Your task to perform on an android device: Empty the shopping cart on ebay.com. Image 0: 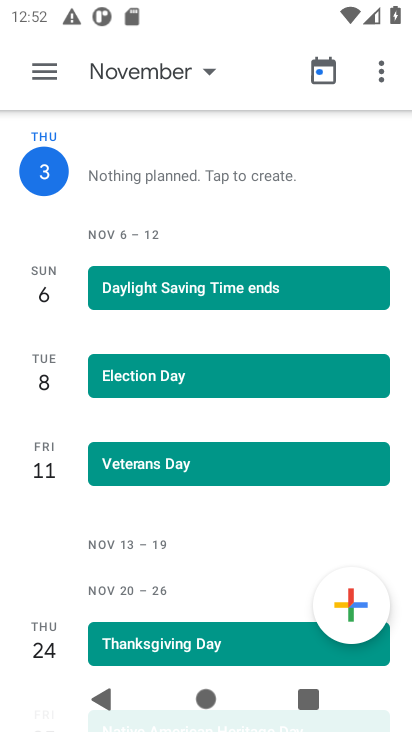
Step 0: press home button
Your task to perform on an android device: Empty the shopping cart on ebay.com. Image 1: 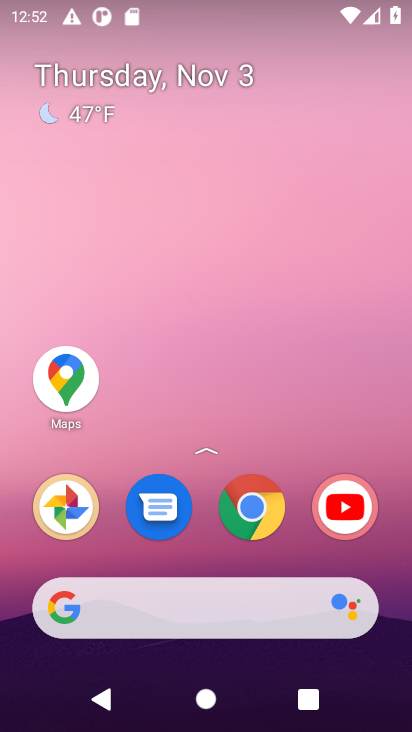
Step 1: click (188, 612)
Your task to perform on an android device: Empty the shopping cart on ebay.com. Image 2: 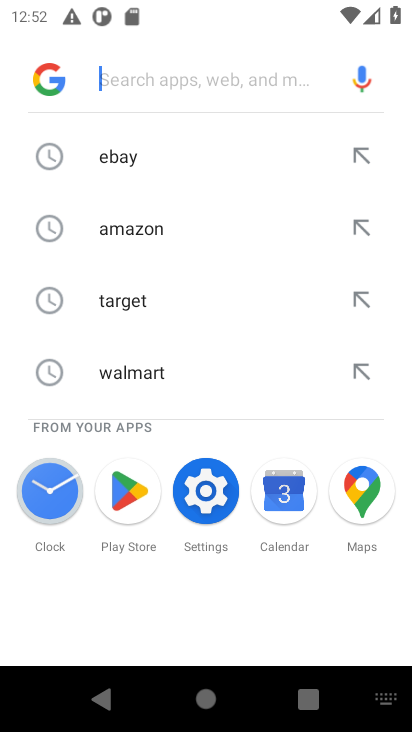
Step 2: type "ebay.com"
Your task to perform on an android device: Empty the shopping cart on ebay.com. Image 3: 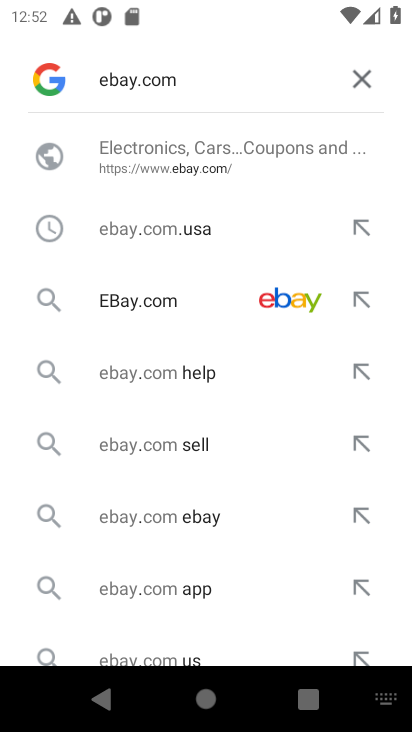
Step 3: click (149, 191)
Your task to perform on an android device: Empty the shopping cart on ebay.com. Image 4: 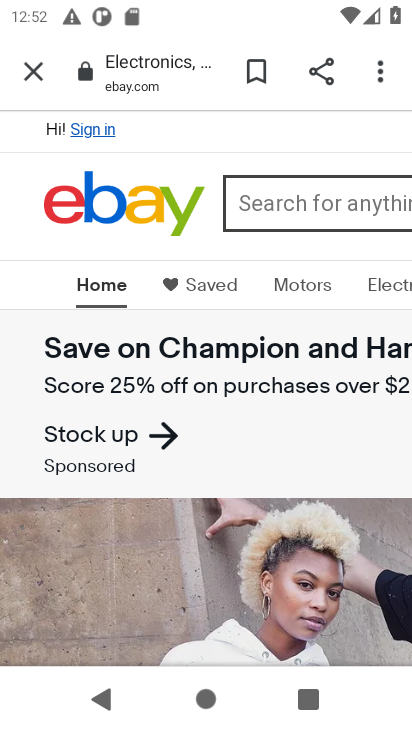
Step 4: click (289, 210)
Your task to perform on an android device: Empty the shopping cart on ebay.com. Image 5: 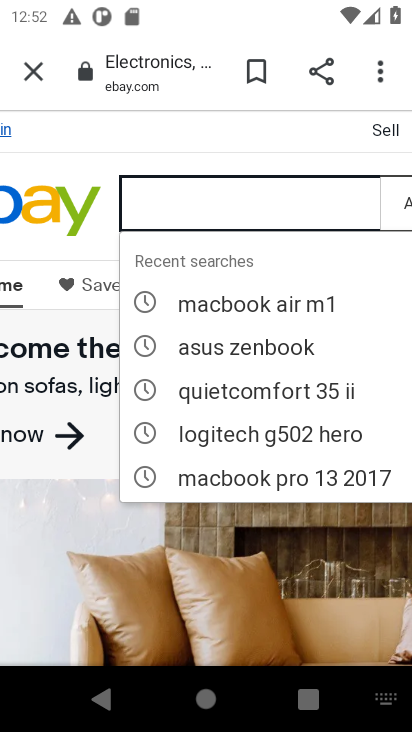
Step 5: click (81, 131)
Your task to perform on an android device: Empty the shopping cart on ebay.com. Image 6: 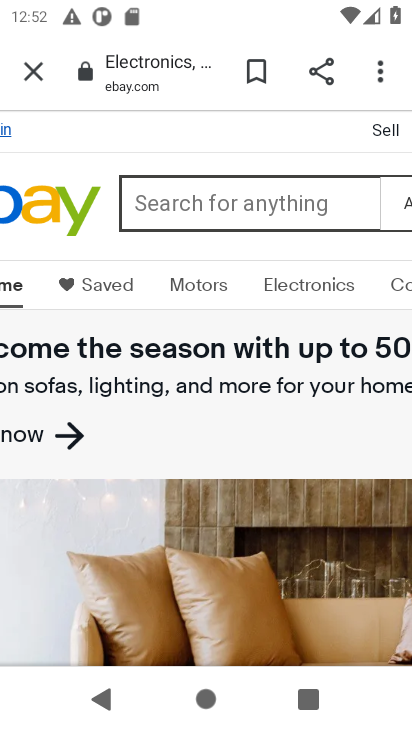
Step 6: drag from (194, 149) to (12, 181)
Your task to perform on an android device: Empty the shopping cart on ebay.com. Image 7: 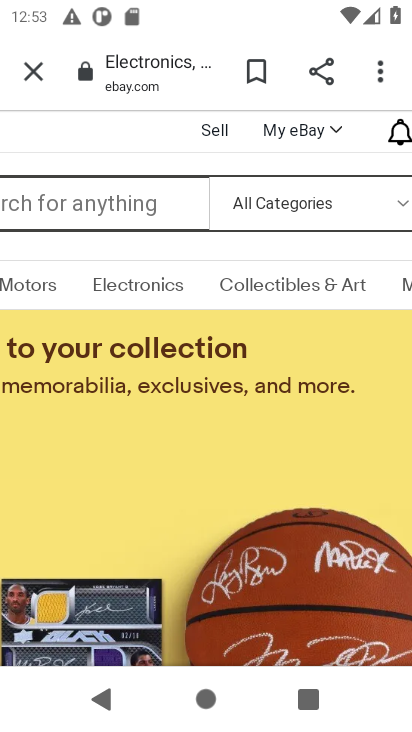
Step 7: drag from (352, 251) to (77, 307)
Your task to perform on an android device: Empty the shopping cart on ebay.com. Image 8: 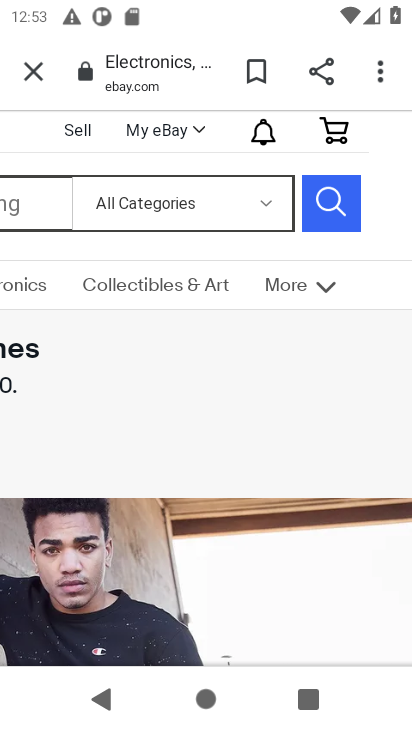
Step 8: click (336, 145)
Your task to perform on an android device: Empty the shopping cart on ebay.com. Image 9: 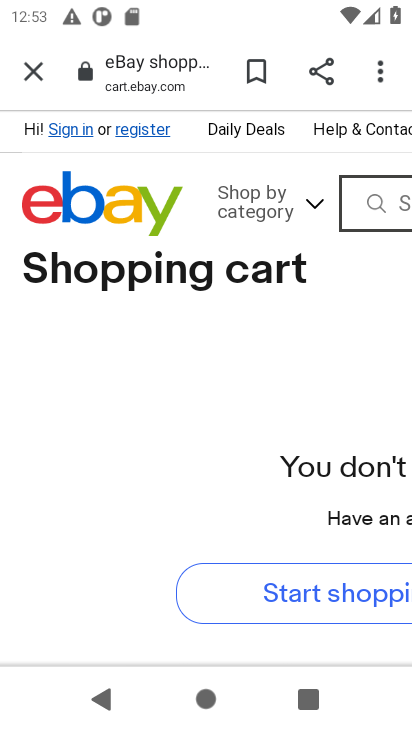
Step 9: task complete